Your task to perform on an android device: Open maps Image 0: 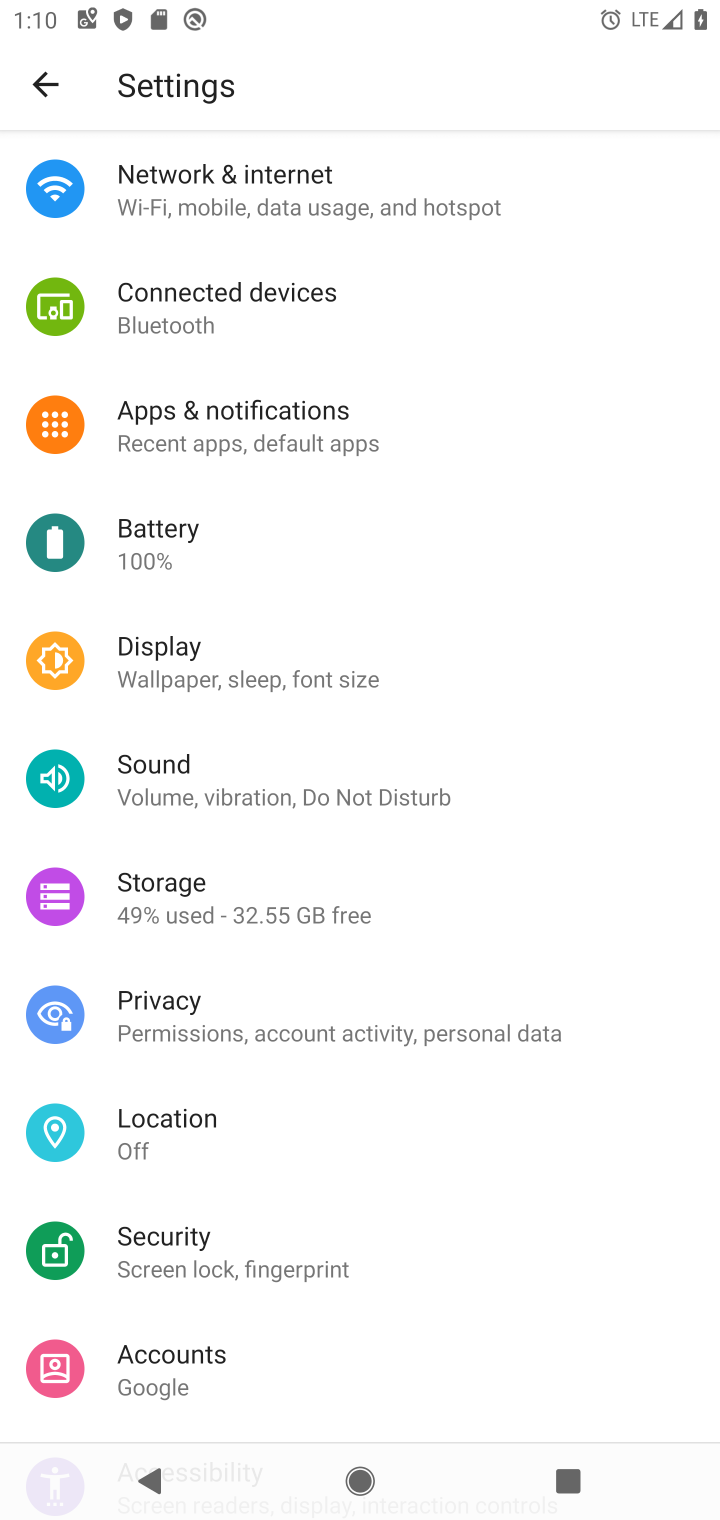
Step 0: press home button
Your task to perform on an android device: Open maps Image 1: 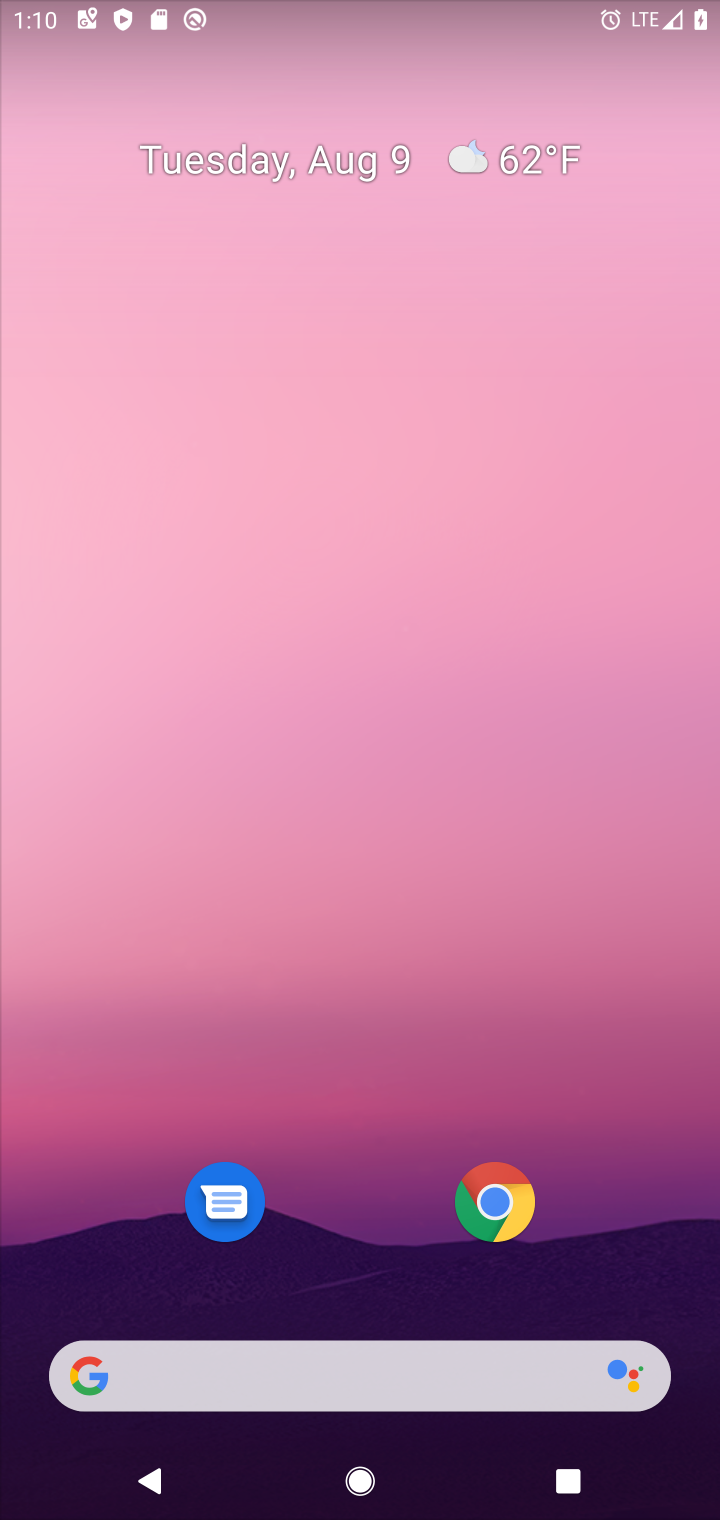
Step 1: click (385, 226)
Your task to perform on an android device: Open maps Image 2: 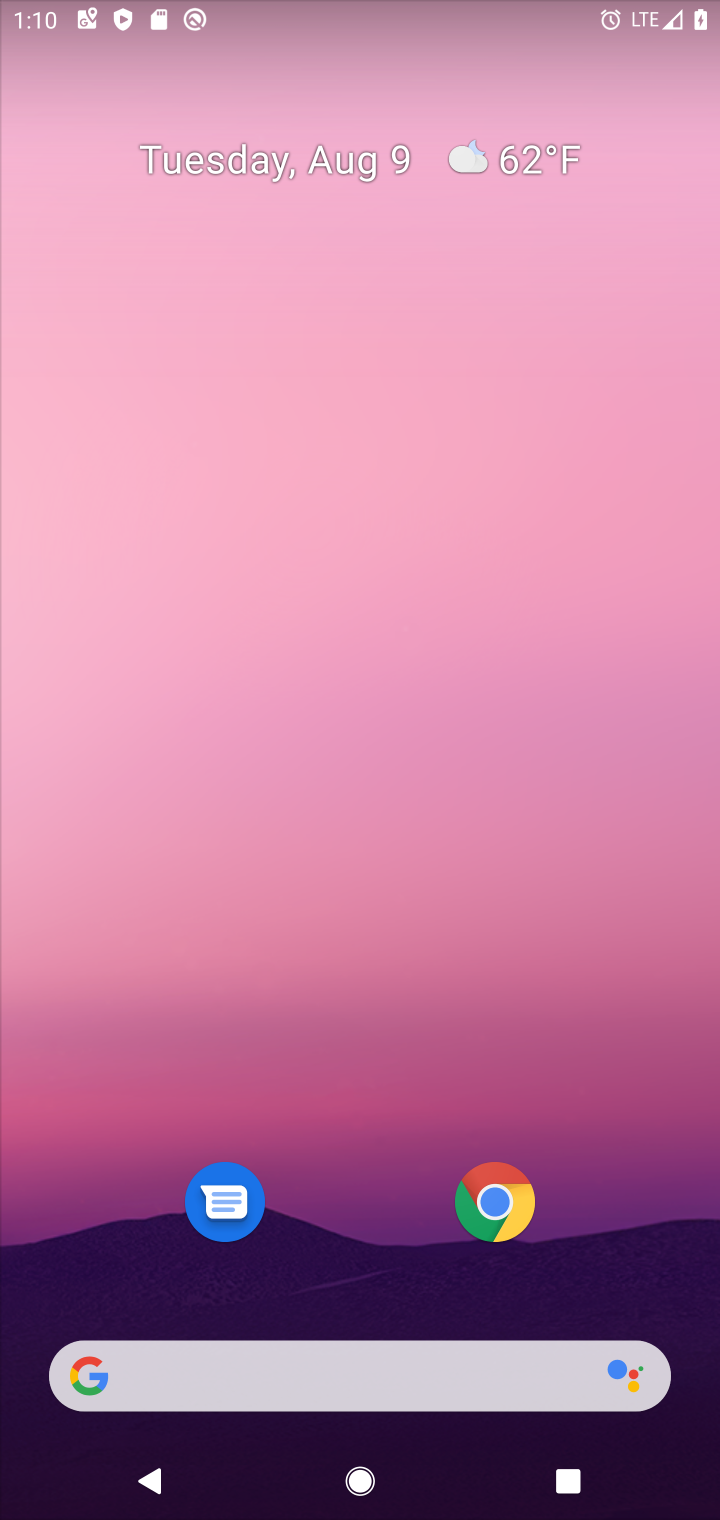
Step 2: drag from (311, 867) to (334, 161)
Your task to perform on an android device: Open maps Image 3: 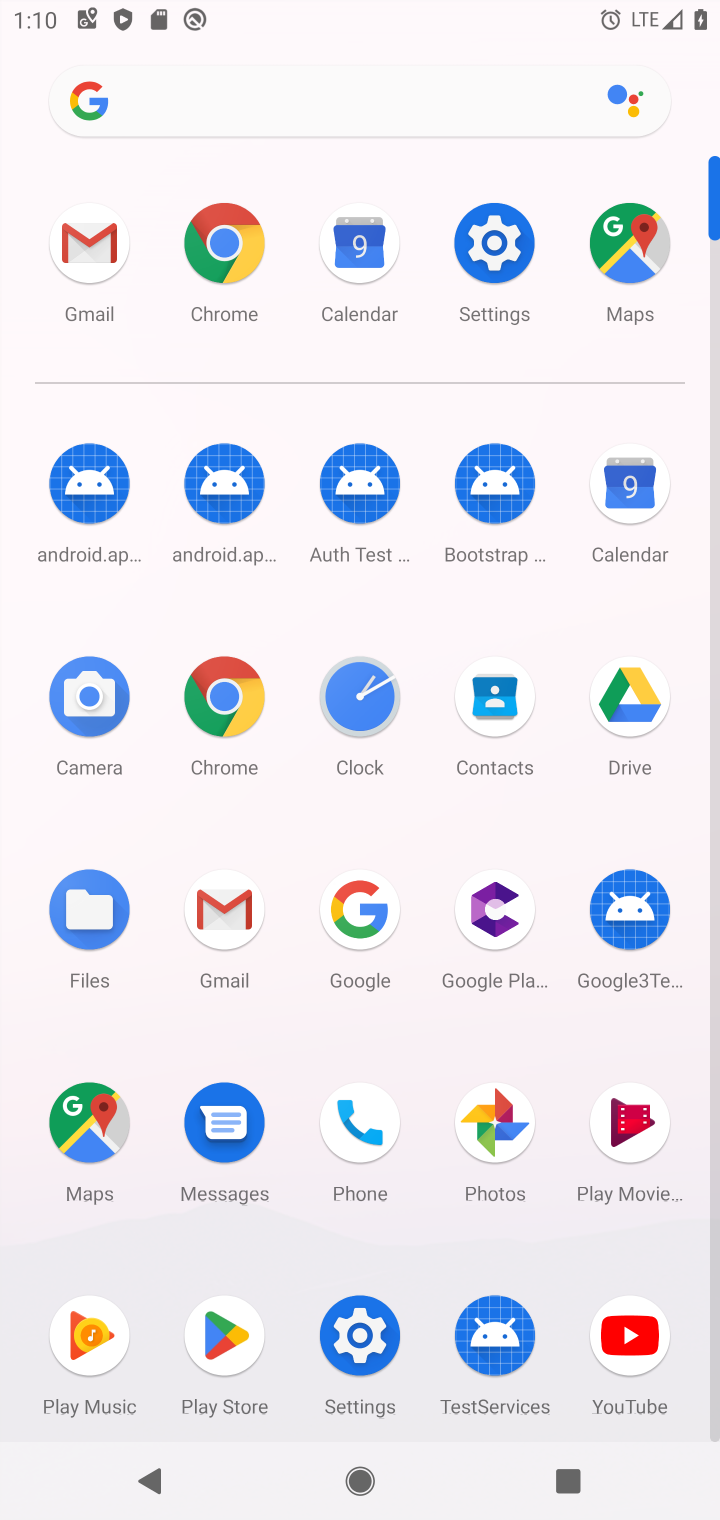
Step 3: click (71, 1140)
Your task to perform on an android device: Open maps Image 4: 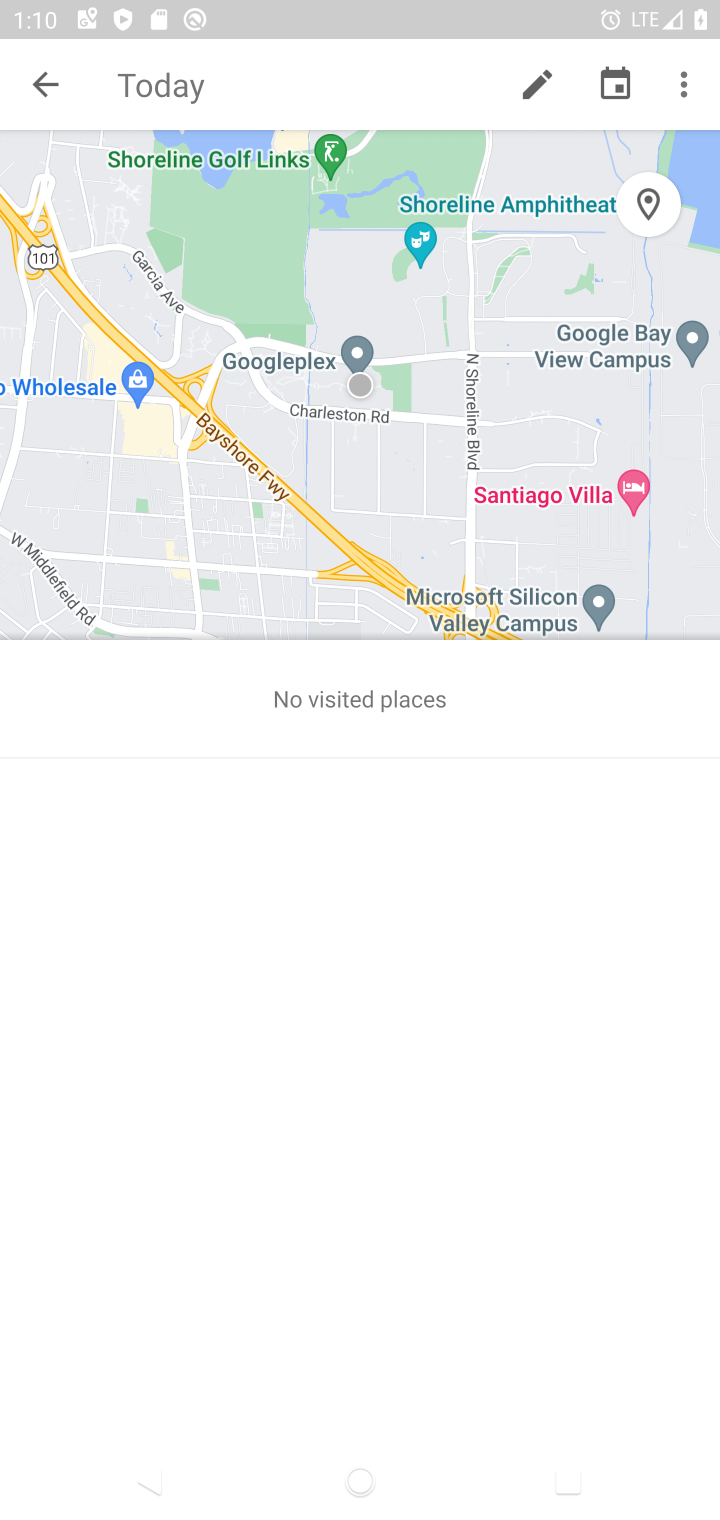
Step 4: task complete